Your task to perform on an android device: check android version Image 0: 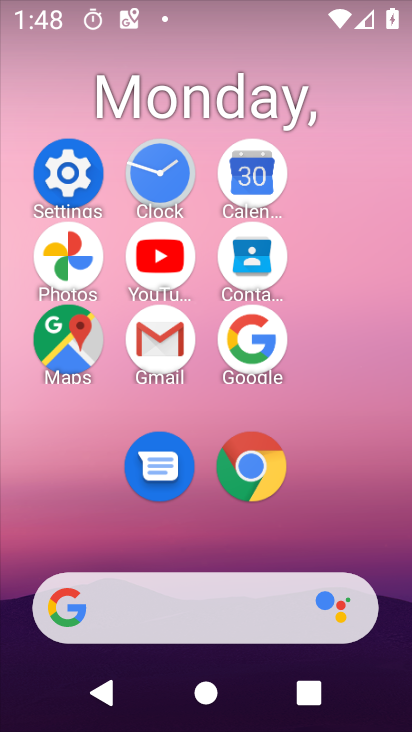
Step 0: click (75, 185)
Your task to perform on an android device: check android version Image 1: 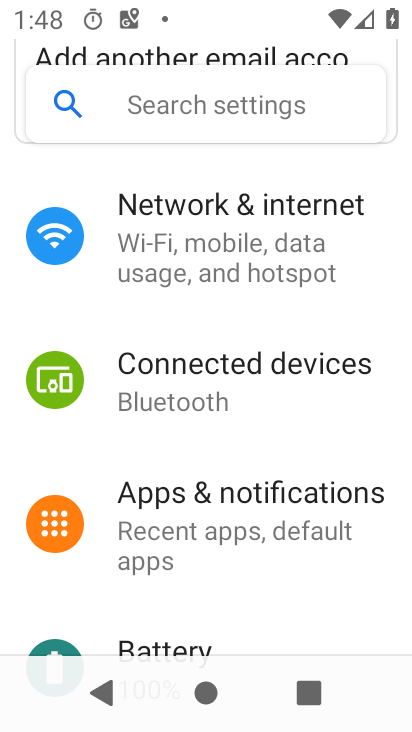
Step 1: drag from (266, 607) to (289, 4)
Your task to perform on an android device: check android version Image 2: 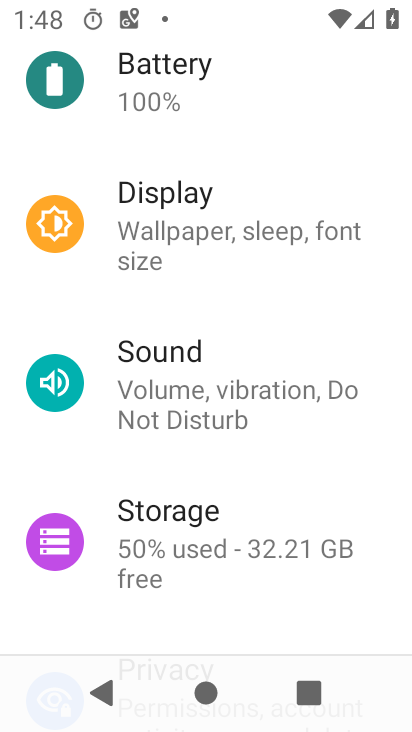
Step 2: drag from (266, 604) to (300, 33)
Your task to perform on an android device: check android version Image 3: 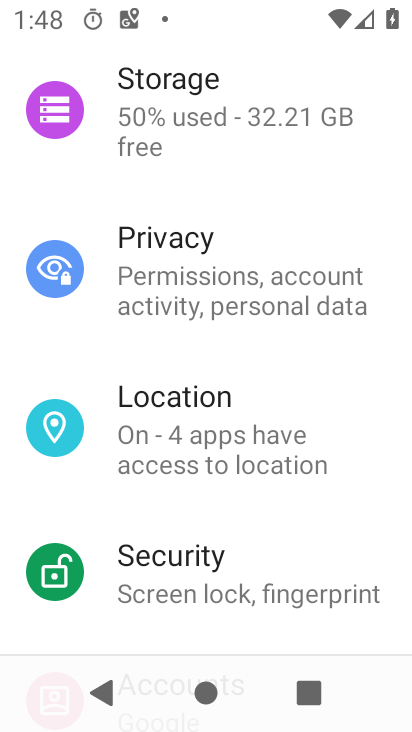
Step 3: drag from (283, 551) to (323, 51)
Your task to perform on an android device: check android version Image 4: 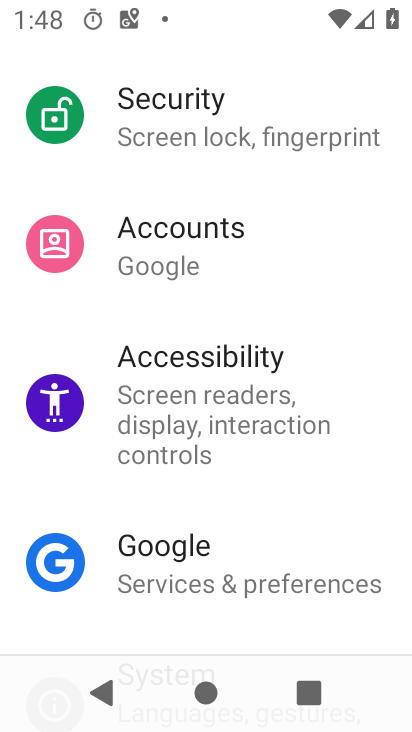
Step 4: drag from (295, 547) to (280, 67)
Your task to perform on an android device: check android version Image 5: 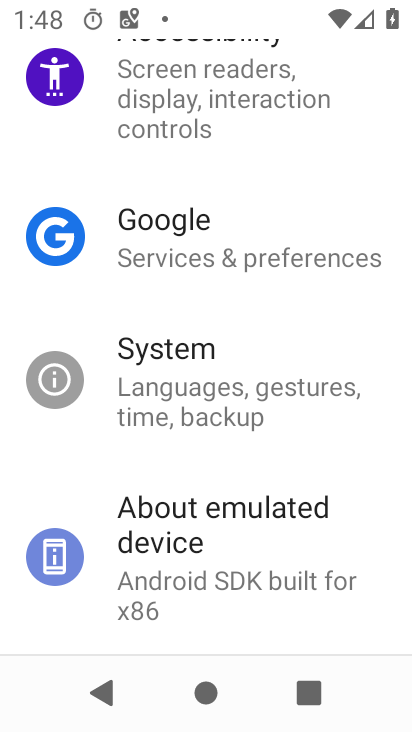
Step 5: drag from (289, 538) to (322, 148)
Your task to perform on an android device: check android version Image 6: 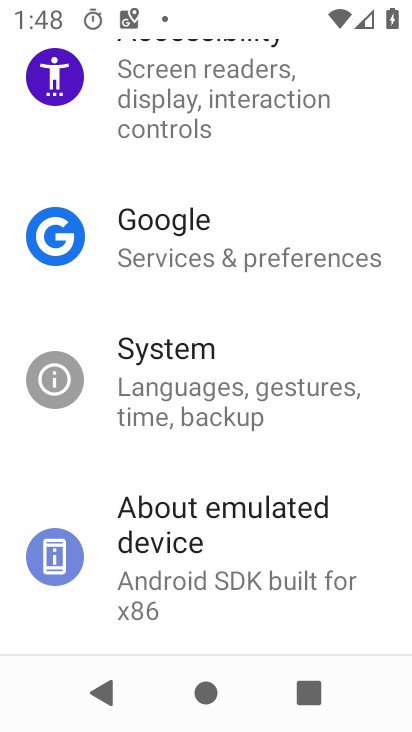
Step 6: click (274, 524)
Your task to perform on an android device: check android version Image 7: 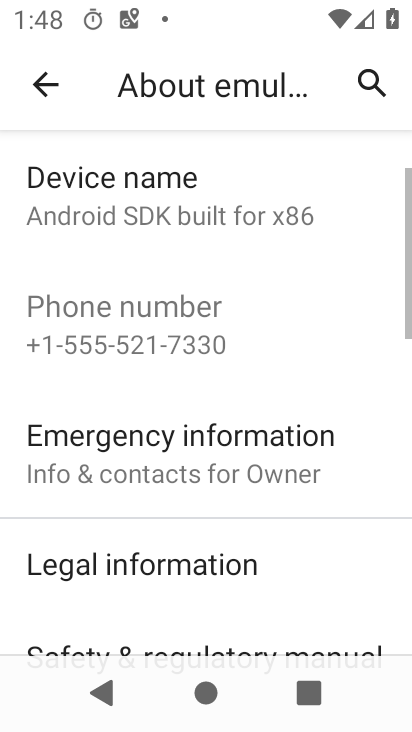
Step 7: drag from (280, 513) to (287, 124)
Your task to perform on an android device: check android version Image 8: 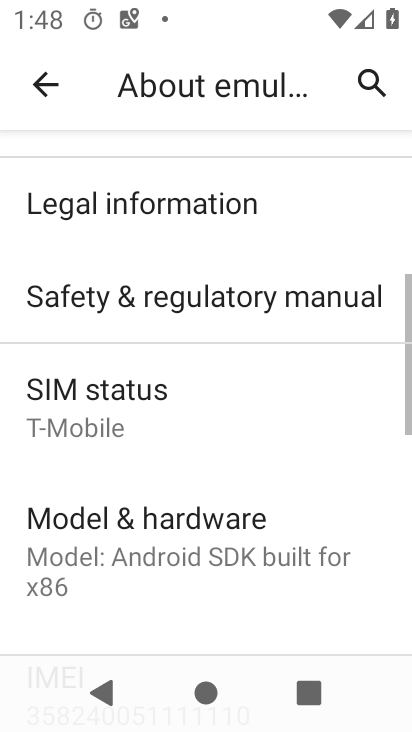
Step 8: drag from (213, 498) to (252, 131)
Your task to perform on an android device: check android version Image 9: 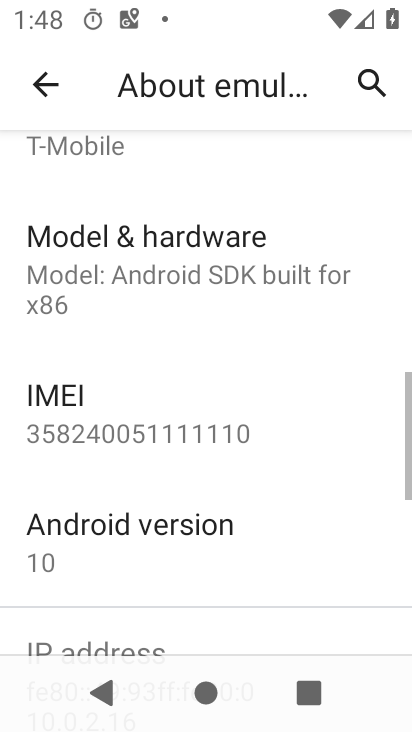
Step 9: click (224, 518)
Your task to perform on an android device: check android version Image 10: 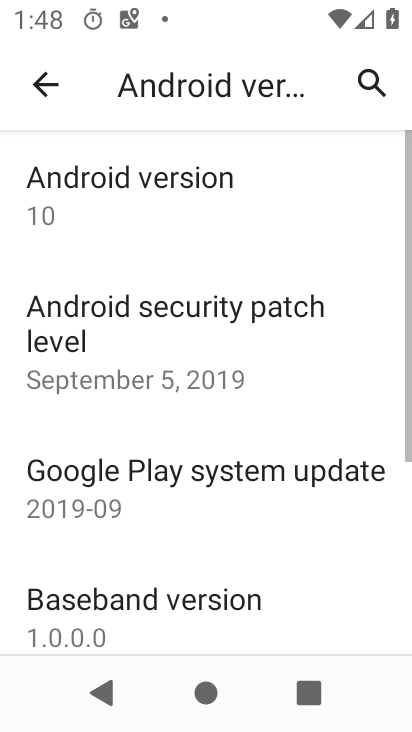
Step 10: task complete